Your task to perform on an android device: change your default location settings in chrome Image 0: 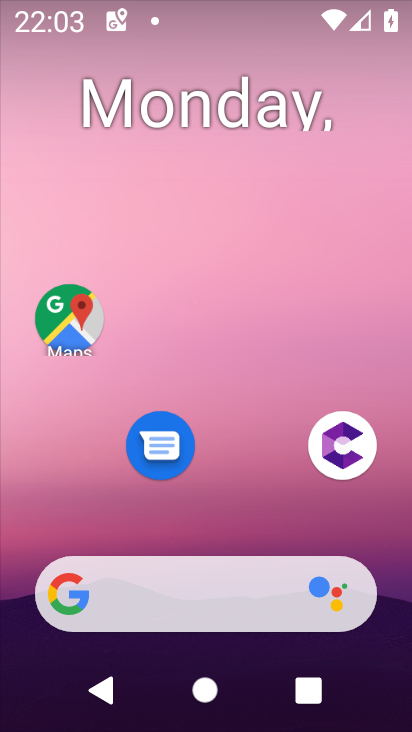
Step 0: drag from (247, 482) to (253, 64)
Your task to perform on an android device: change your default location settings in chrome Image 1: 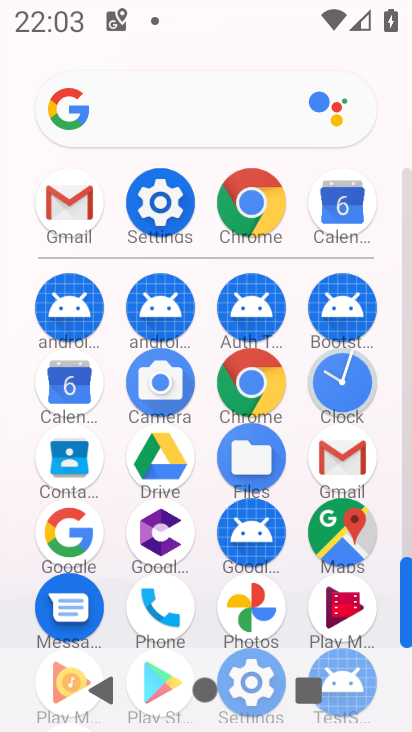
Step 1: click (236, 184)
Your task to perform on an android device: change your default location settings in chrome Image 2: 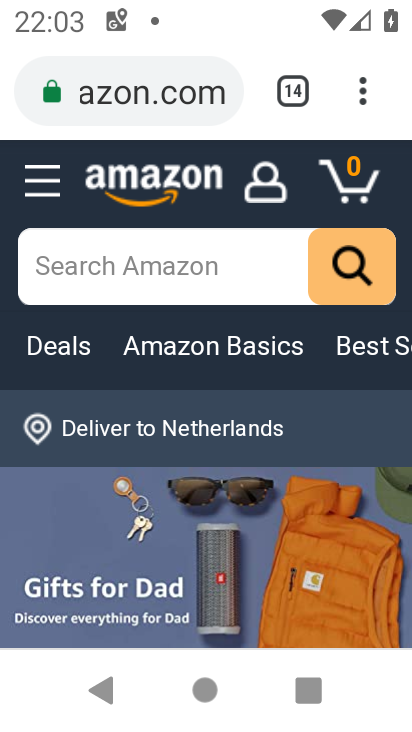
Step 2: drag from (358, 98) to (166, 465)
Your task to perform on an android device: change your default location settings in chrome Image 3: 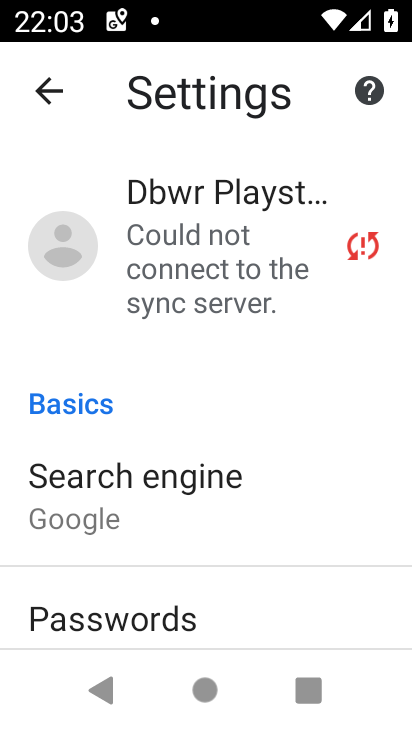
Step 3: drag from (354, 411) to (281, 100)
Your task to perform on an android device: change your default location settings in chrome Image 4: 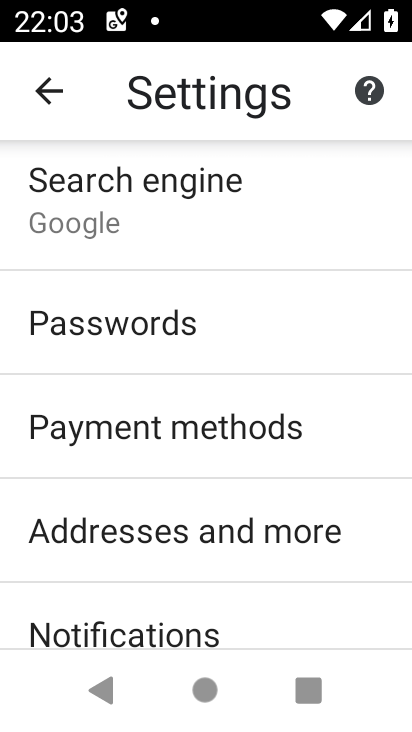
Step 4: drag from (251, 604) to (196, 107)
Your task to perform on an android device: change your default location settings in chrome Image 5: 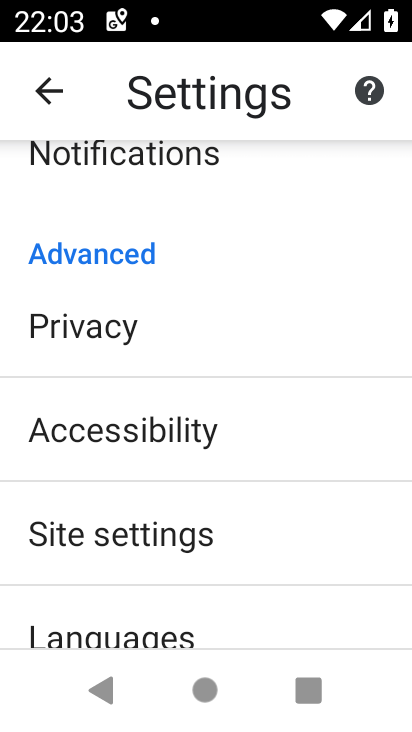
Step 5: click (207, 553)
Your task to perform on an android device: change your default location settings in chrome Image 6: 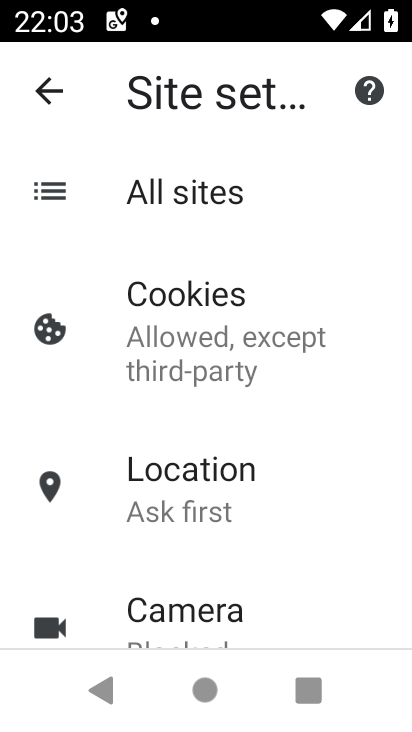
Step 6: click (212, 480)
Your task to perform on an android device: change your default location settings in chrome Image 7: 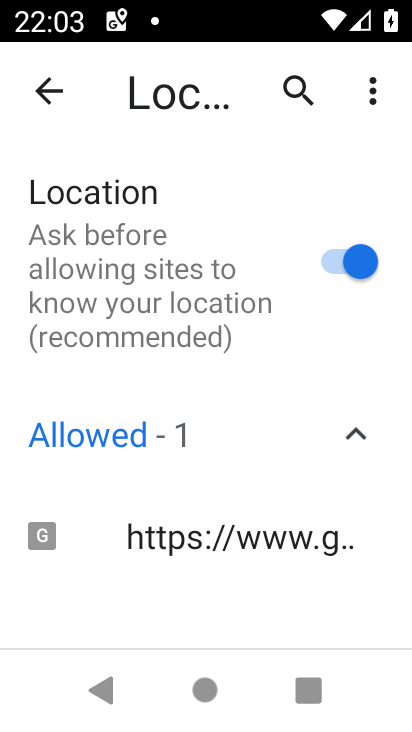
Step 7: click (343, 257)
Your task to perform on an android device: change your default location settings in chrome Image 8: 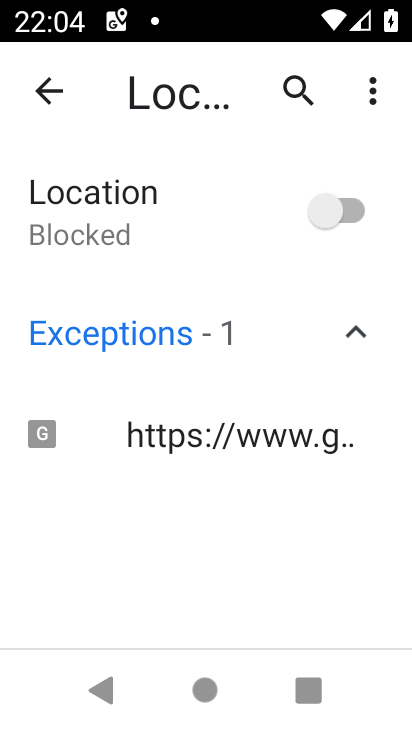
Step 8: task complete